Your task to perform on an android device: find snoozed emails in the gmail app Image 0: 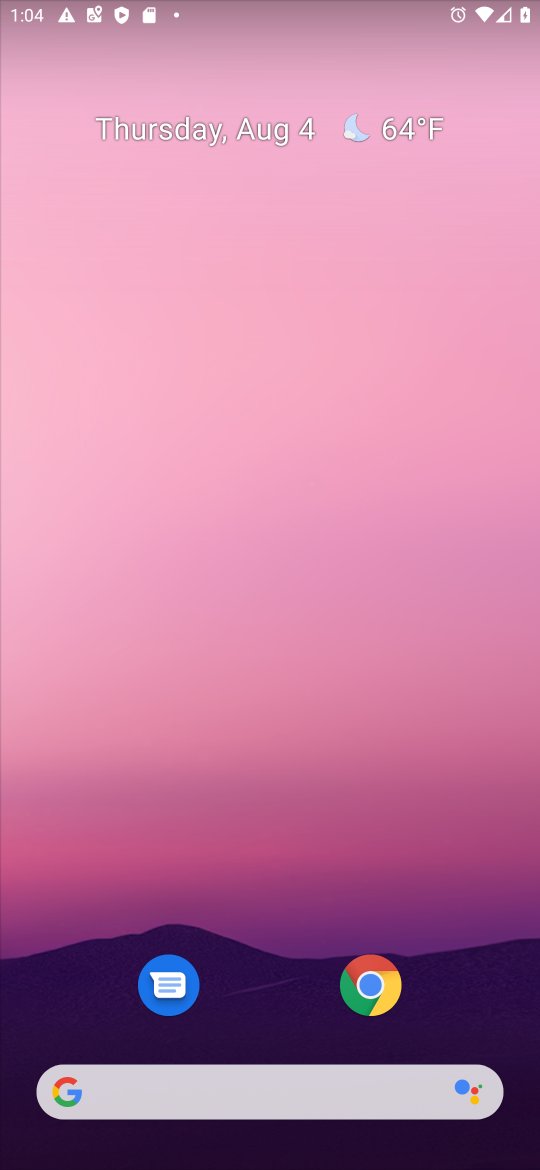
Step 0: drag from (267, 861) to (241, 136)
Your task to perform on an android device: find snoozed emails in the gmail app Image 1: 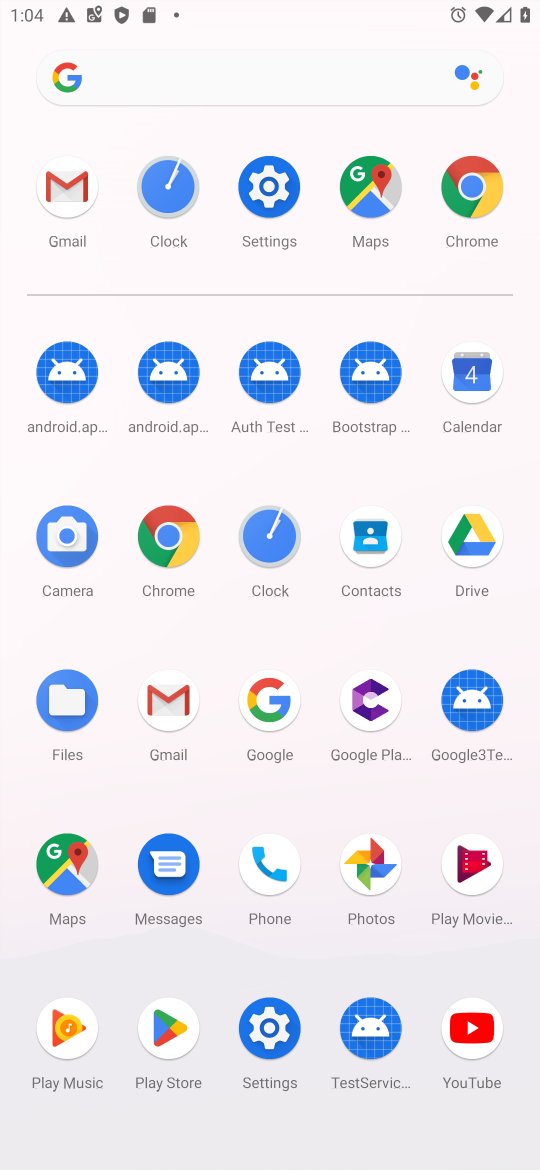
Step 1: click (71, 189)
Your task to perform on an android device: find snoozed emails in the gmail app Image 2: 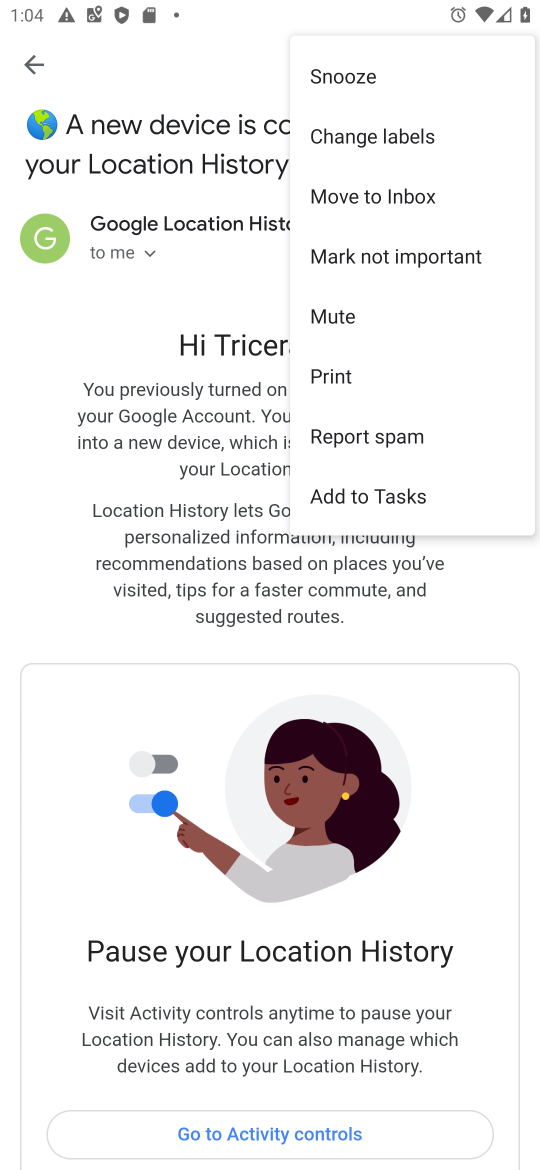
Step 2: click (36, 69)
Your task to perform on an android device: find snoozed emails in the gmail app Image 3: 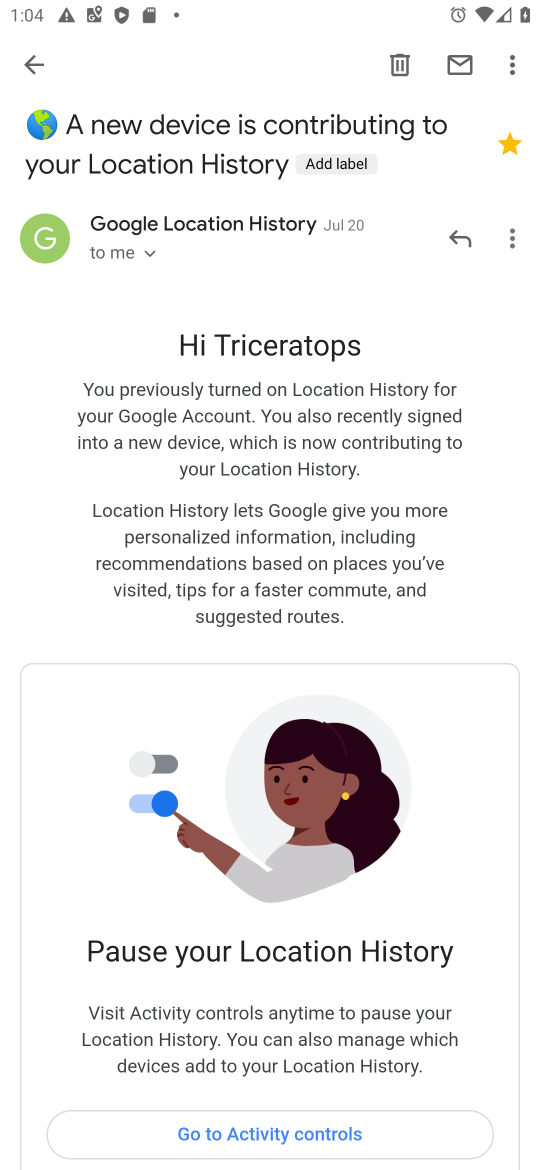
Step 3: click (21, 59)
Your task to perform on an android device: find snoozed emails in the gmail app Image 4: 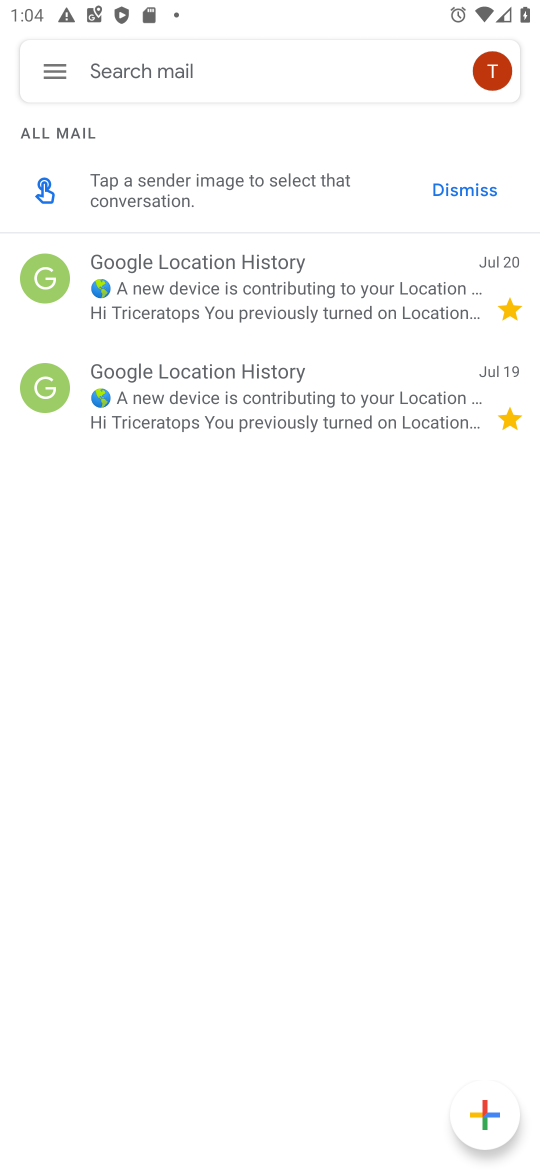
Step 4: click (61, 62)
Your task to perform on an android device: find snoozed emails in the gmail app Image 5: 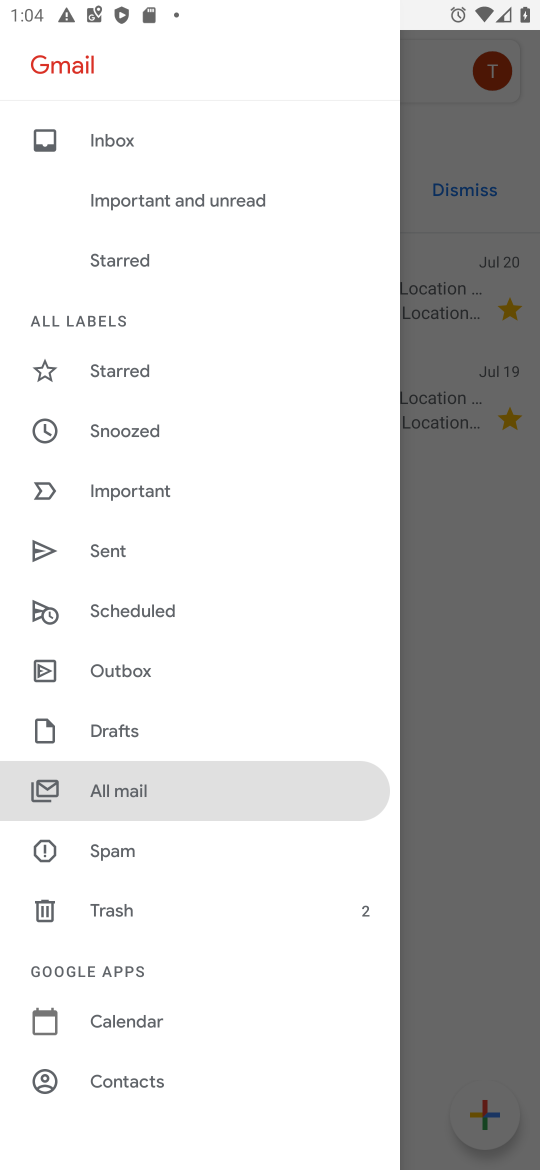
Step 5: click (138, 431)
Your task to perform on an android device: find snoozed emails in the gmail app Image 6: 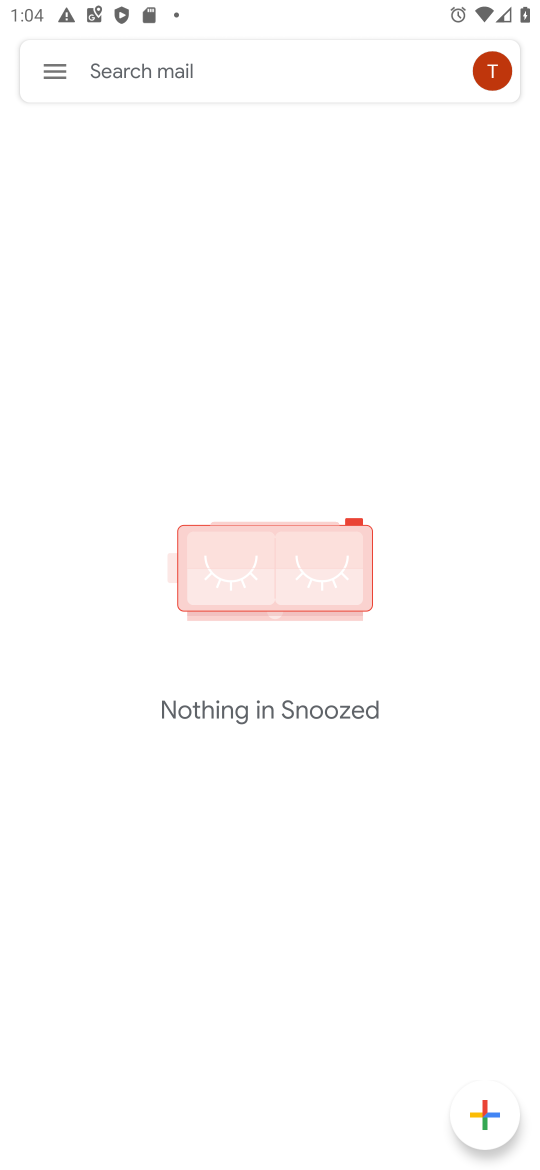
Step 6: task complete